Your task to perform on an android device: Open maps Image 0: 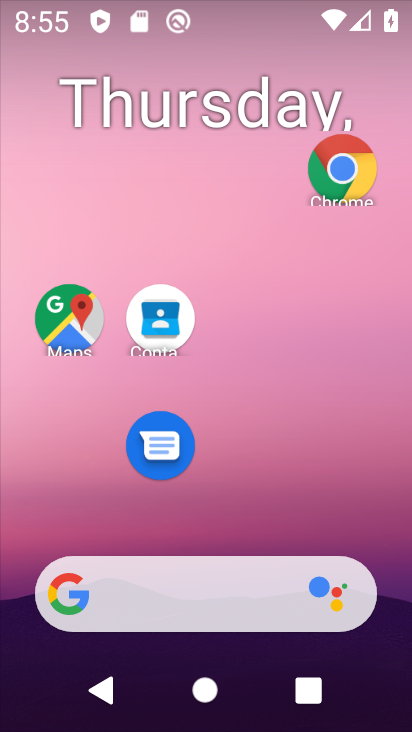
Step 0: drag from (235, 619) to (293, 179)
Your task to perform on an android device: Open maps Image 1: 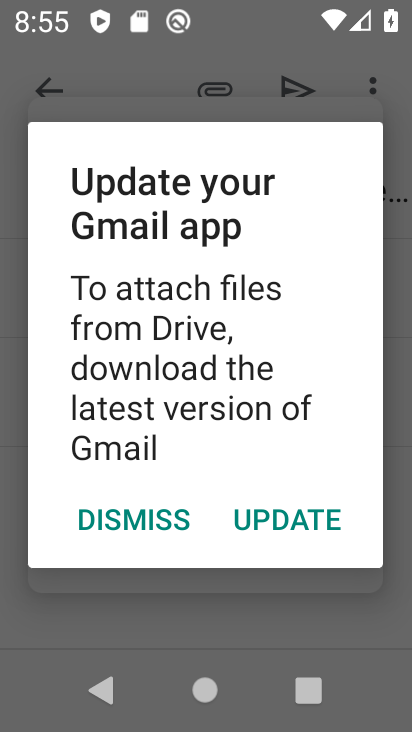
Step 1: click (148, 529)
Your task to perform on an android device: Open maps Image 2: 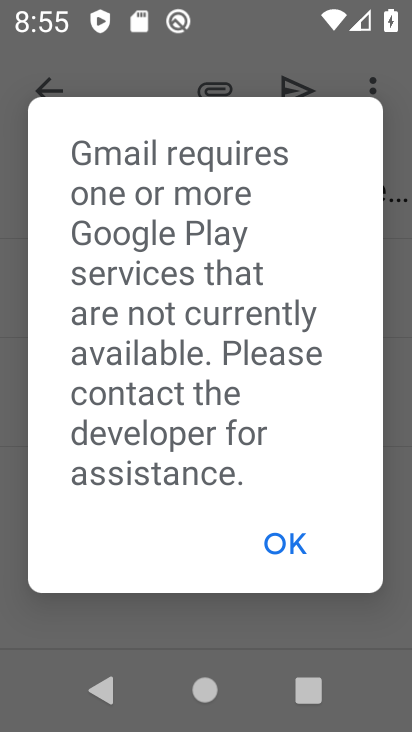
Step 2: click (264, 544)
Your task to perform on an android device: Open maps Image 3: 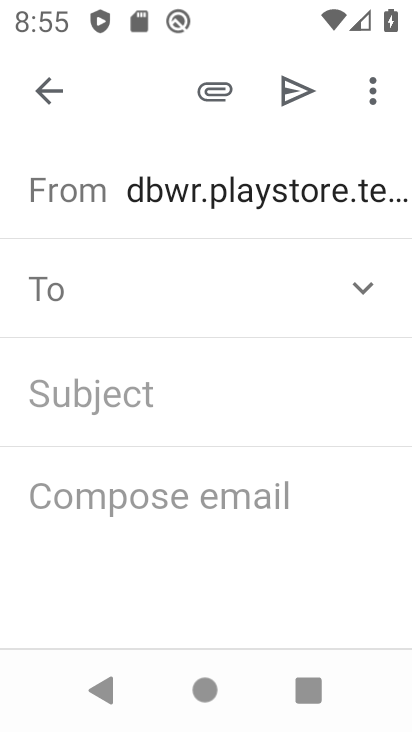
Step 3: press home button
Your task to perform on an android device: Open maps Image 4: 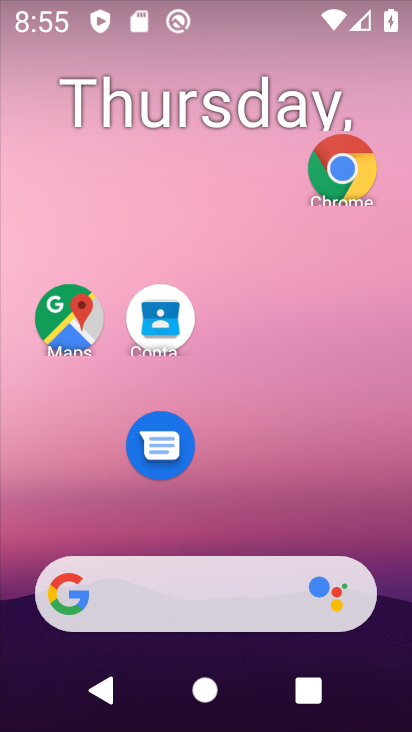
Step 4: click (62, 311)
Your task to perform on an android device: Open maps Image 5: 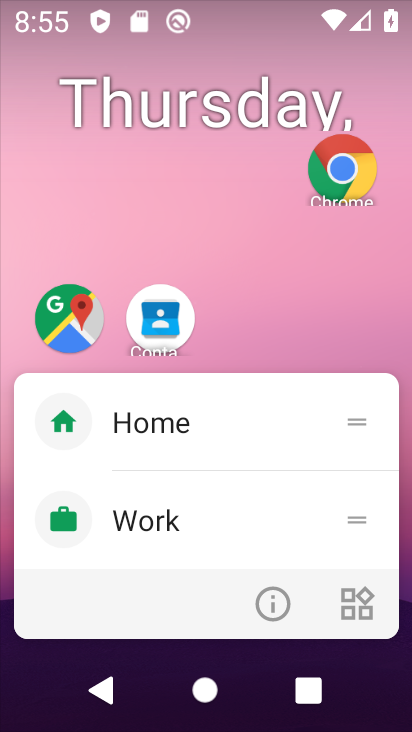
Step 5: click (335, 283)
Your task to perform on an android device: Open maps Image 6: 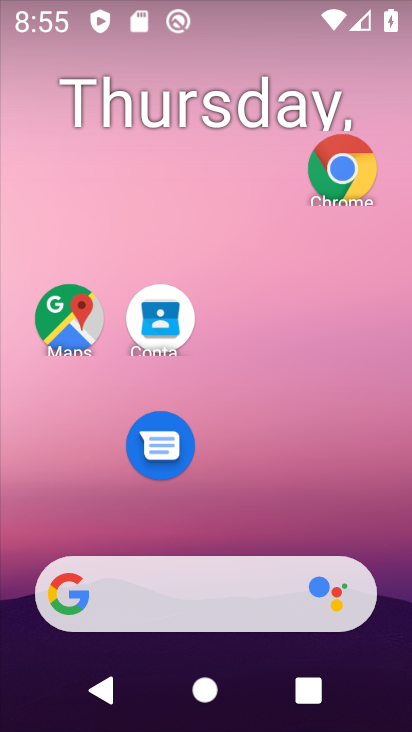
Step 6: drag from (224, 633) to (213, 98)
Your task to perform on an android device: Open maps Image 7: 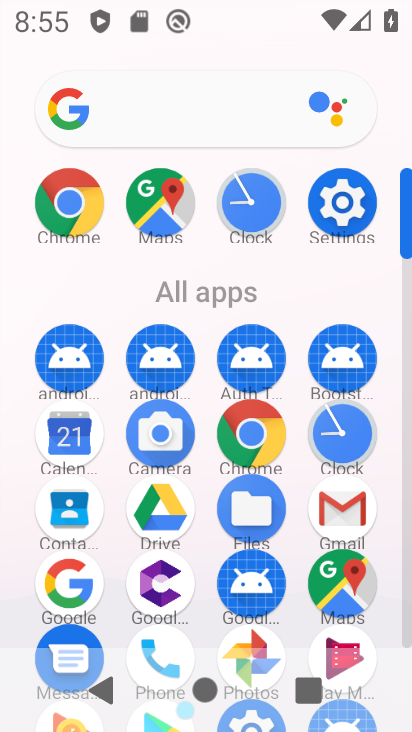
Step 7: click (153, 195)
Your task to perform on an android device: Open maps Image 8: 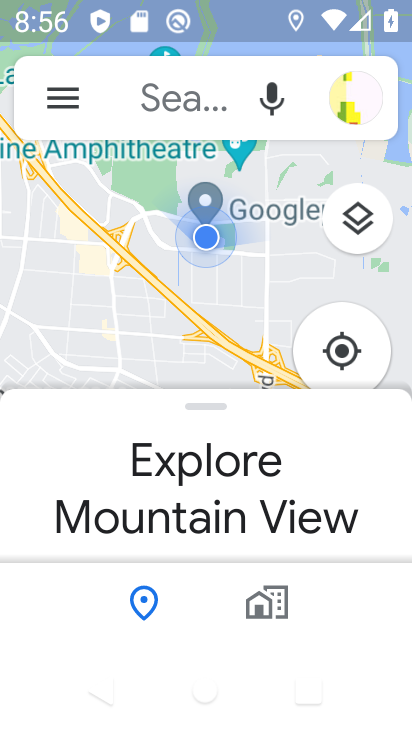
Step 8: click (152, 232)
Your task to perform on an android device: Open maps Image 9: 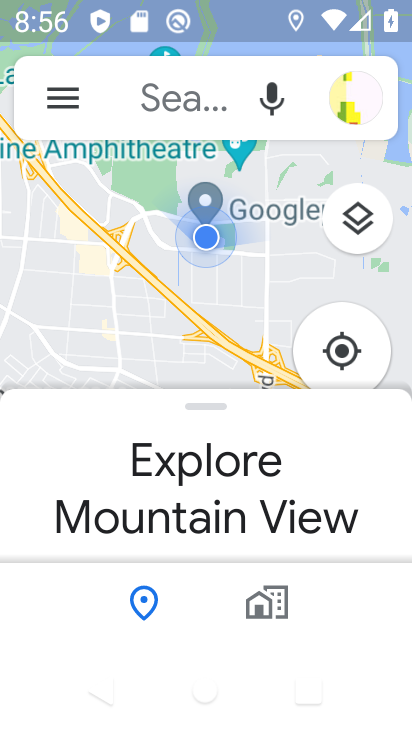
Step 9: task complete